Your task to perform on an android device: Search for Mexican restaurants on Maps Image 0: 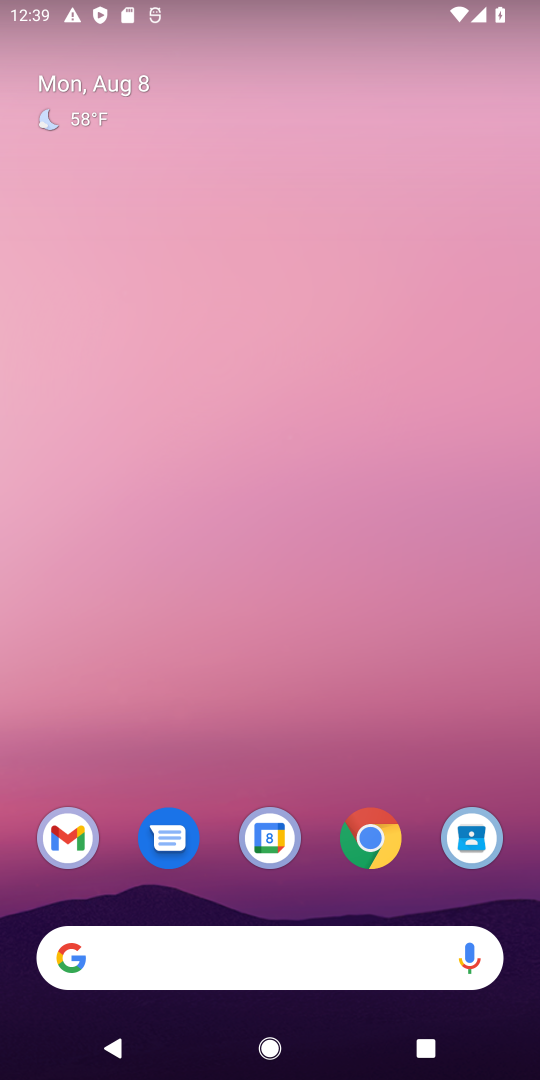
Step 0: press home button
Your task to perform on an android device: Search for Mexican restaurants on Maps Image 1: 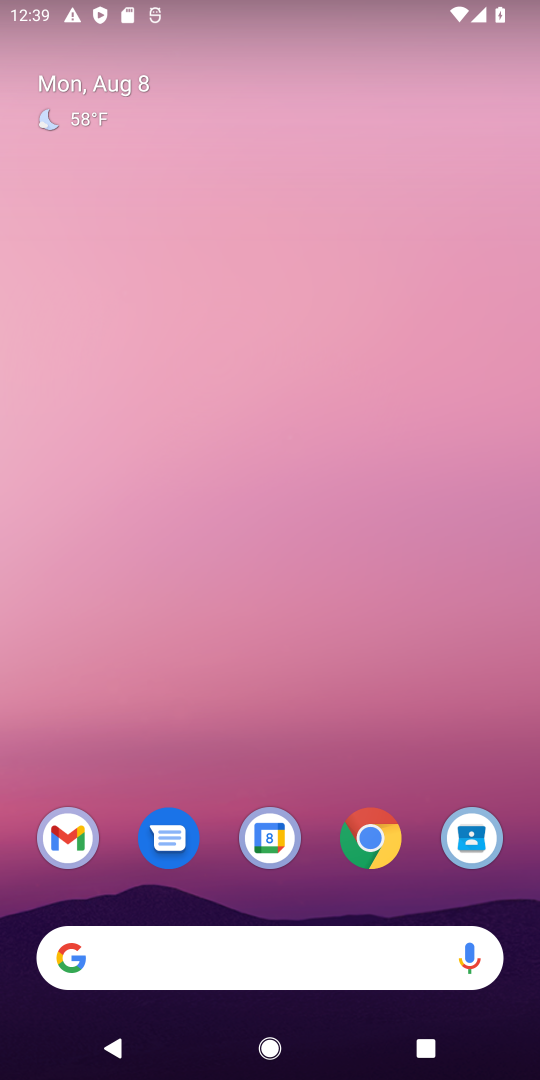
Step 1: drag from (214, 893) to (144, 244)
Your task to perform on an android device: Search for Mexican restaurants on Maps Image 2: 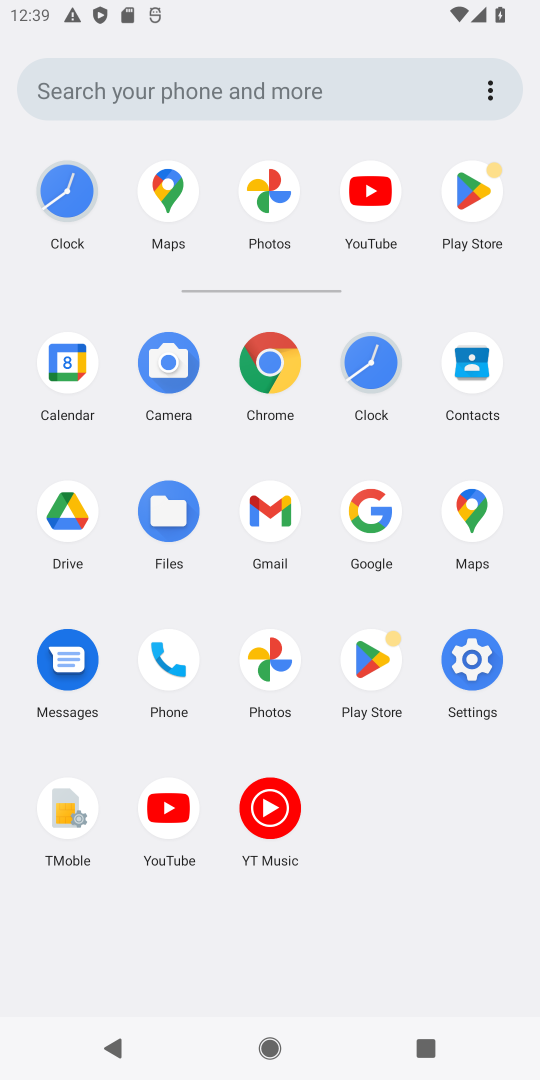
Step 2: click (181, 180)
Your task to perform on an android device: Search for Mexican restaurants on Maps Image 3: 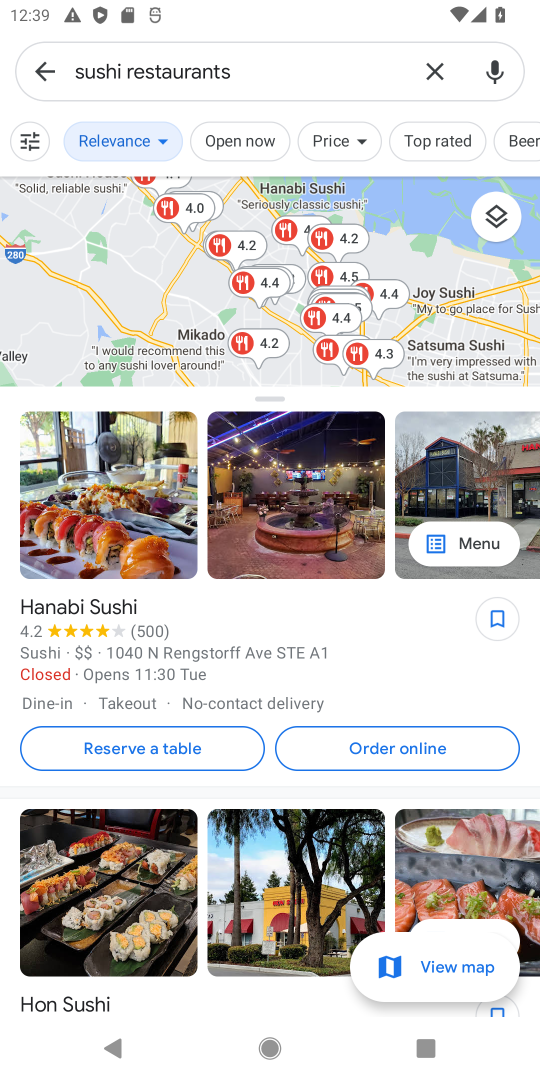
Step 3: click (47, 69)
Your task to perform on an android device: Search for Mexican restaurants on Maps Image 4: 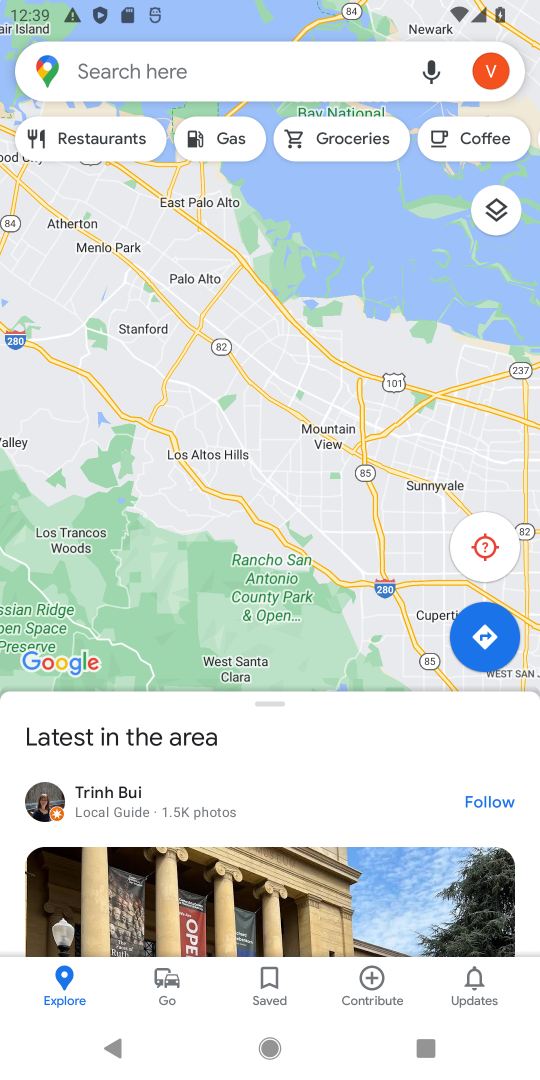
Step 4: click (168, 77)
Your task to perform on an android device: Search for Mexican restaurants on Maps Image 5: 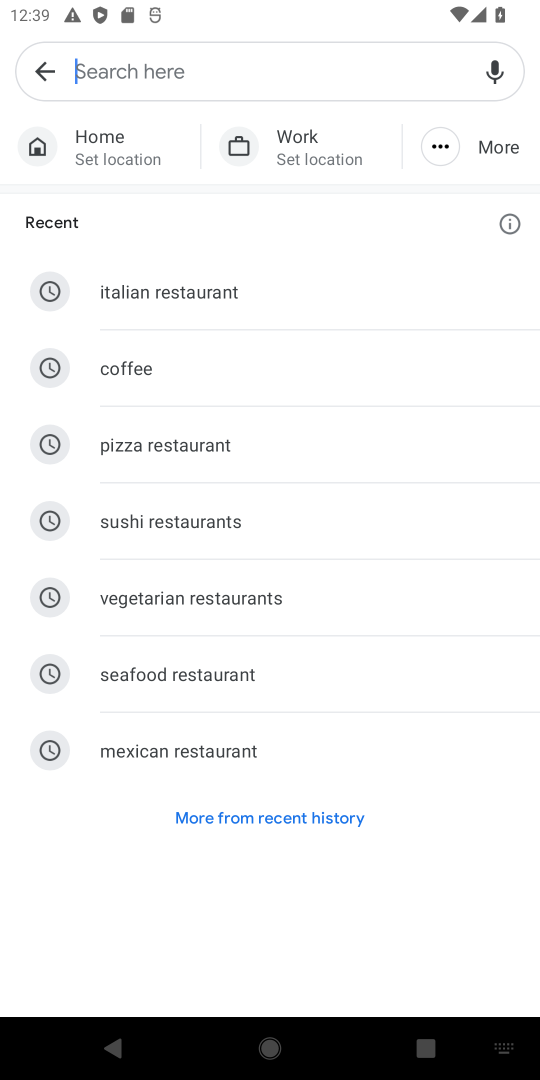
Step 5: click (184, 754)
Your task to perform on an android device: Search for Mexican restaurants on Maps Image 6: 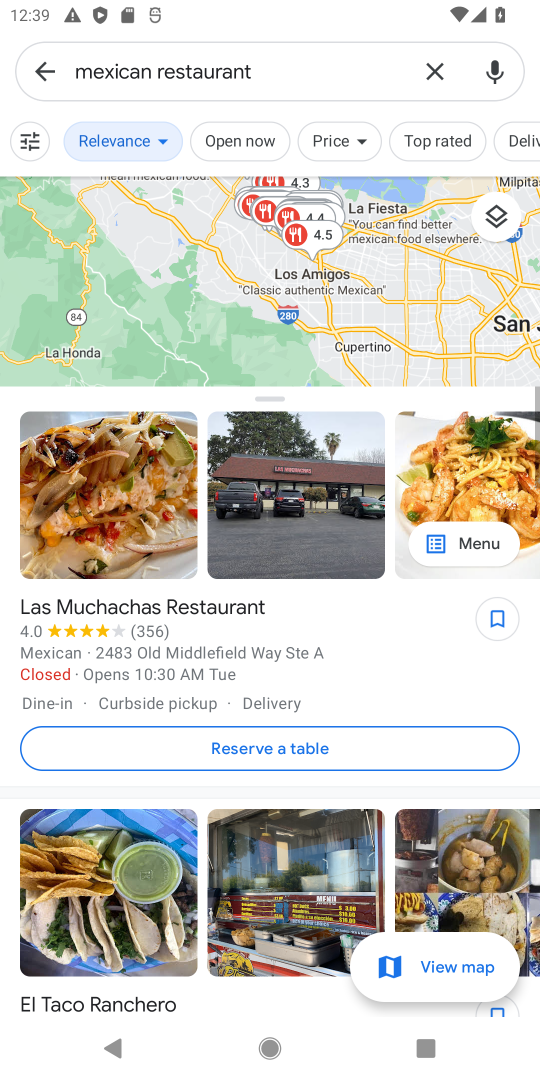
Step 6: task complete